Your task to perform on an android device: When is my next meeting? Image 0: 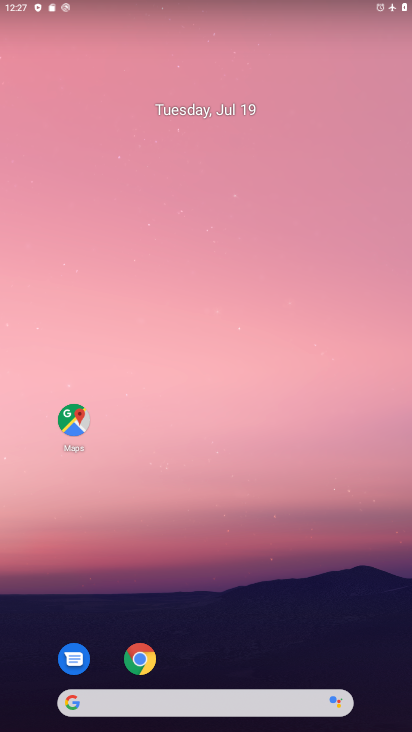
Step 0: drag from (166, 701) to (139, 176)
Your task to perform on an android device: When is my next meeting? Image 1: 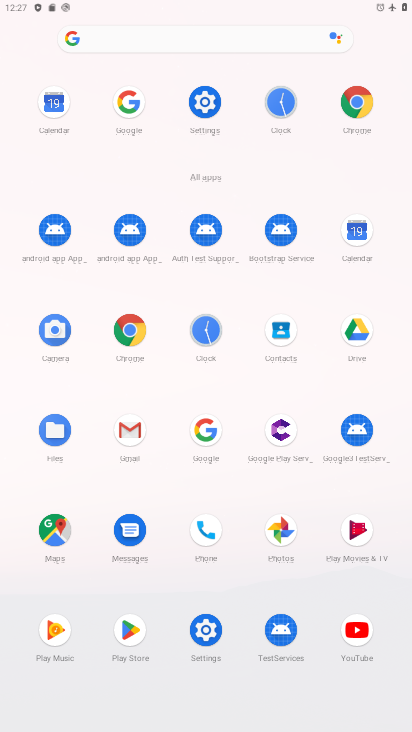
Step 1: click (362, 234)
Your task to perform on an android device: When is my next meeting? Image 2: 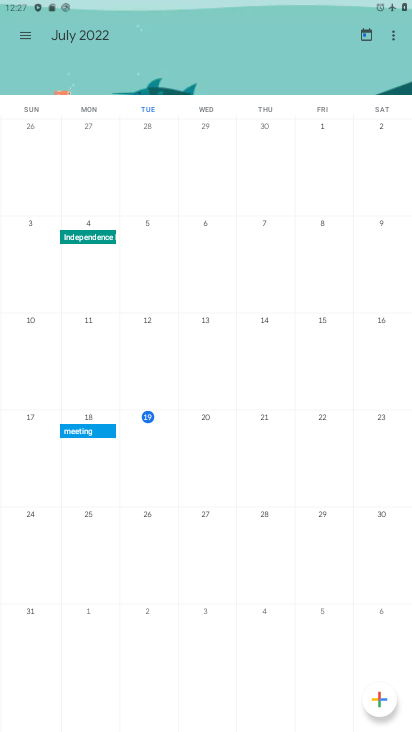
Step 2: click (24, 30)
Your task to perform on an android device: When is my next meeting? Image 3: 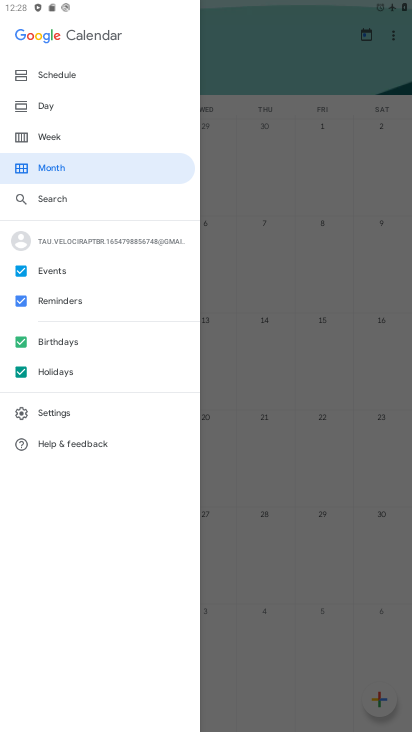
Step 3: click (68, 73)
Your task to perform on an android device: When is my next meeting? Image 4: 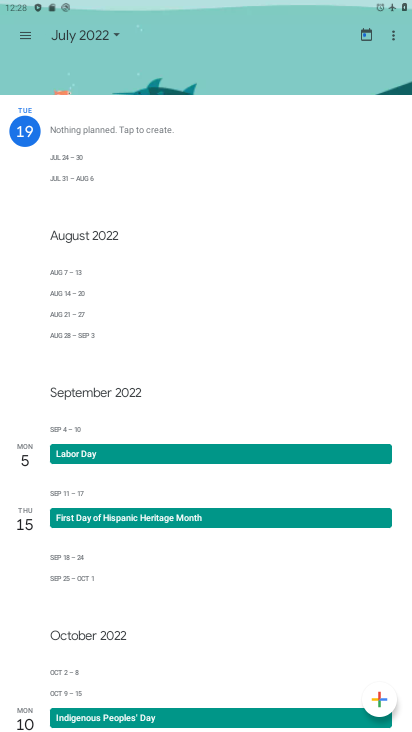
Step 4: task complete